Your task to perform on an android device: change alarm snooze length Image 0: 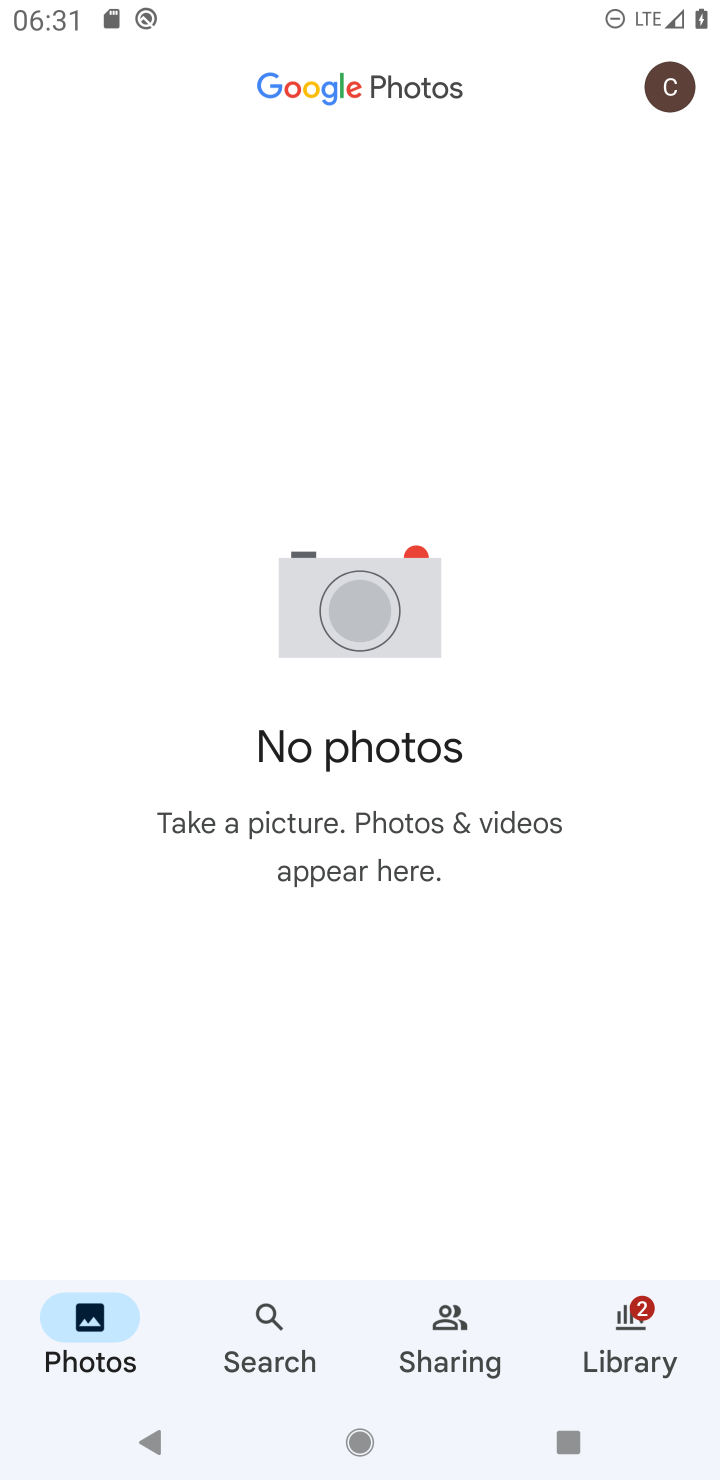
Step 0: press home button
Your task to perform on an android device: change alarm snooze length Image 1: 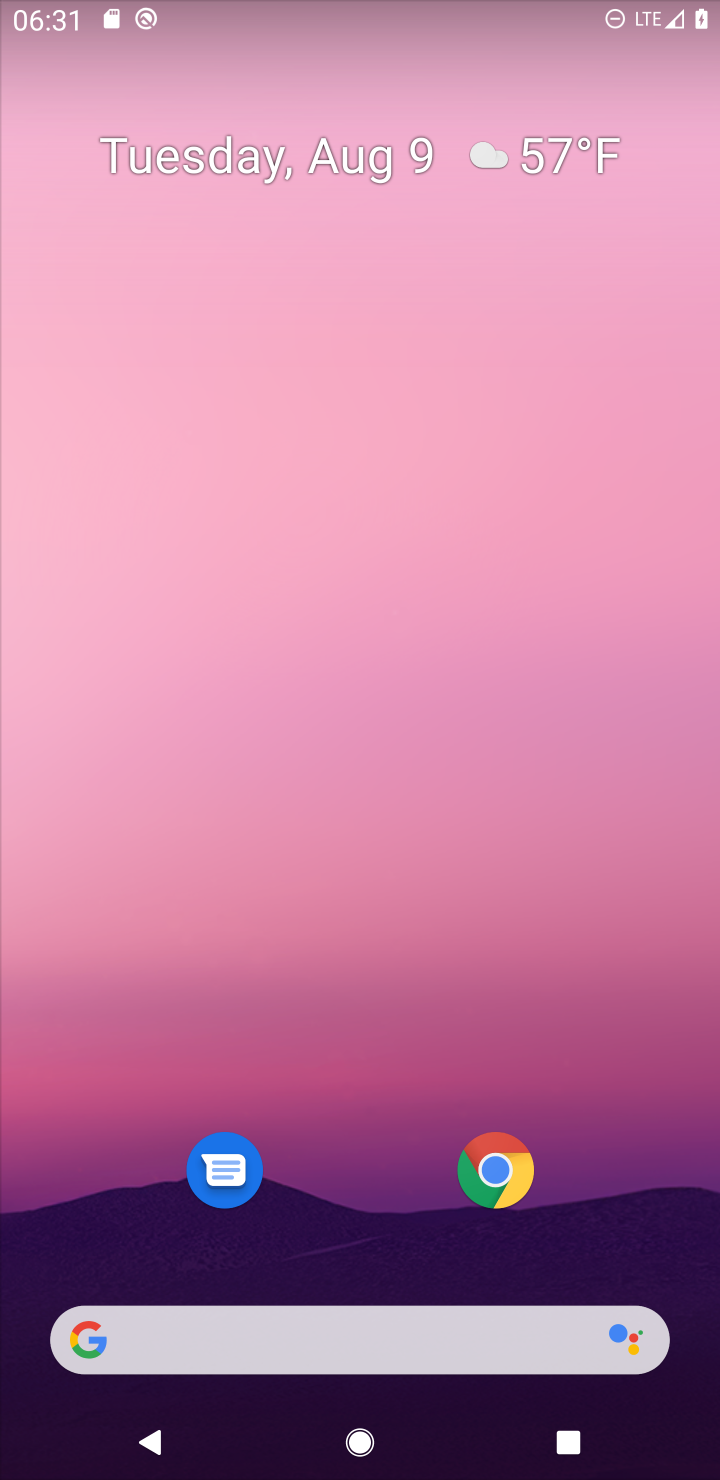
Step 1: drag from (363, 1204) to (372, 100)
Your task to perform on an android device: change alarm snooze length Image 2: 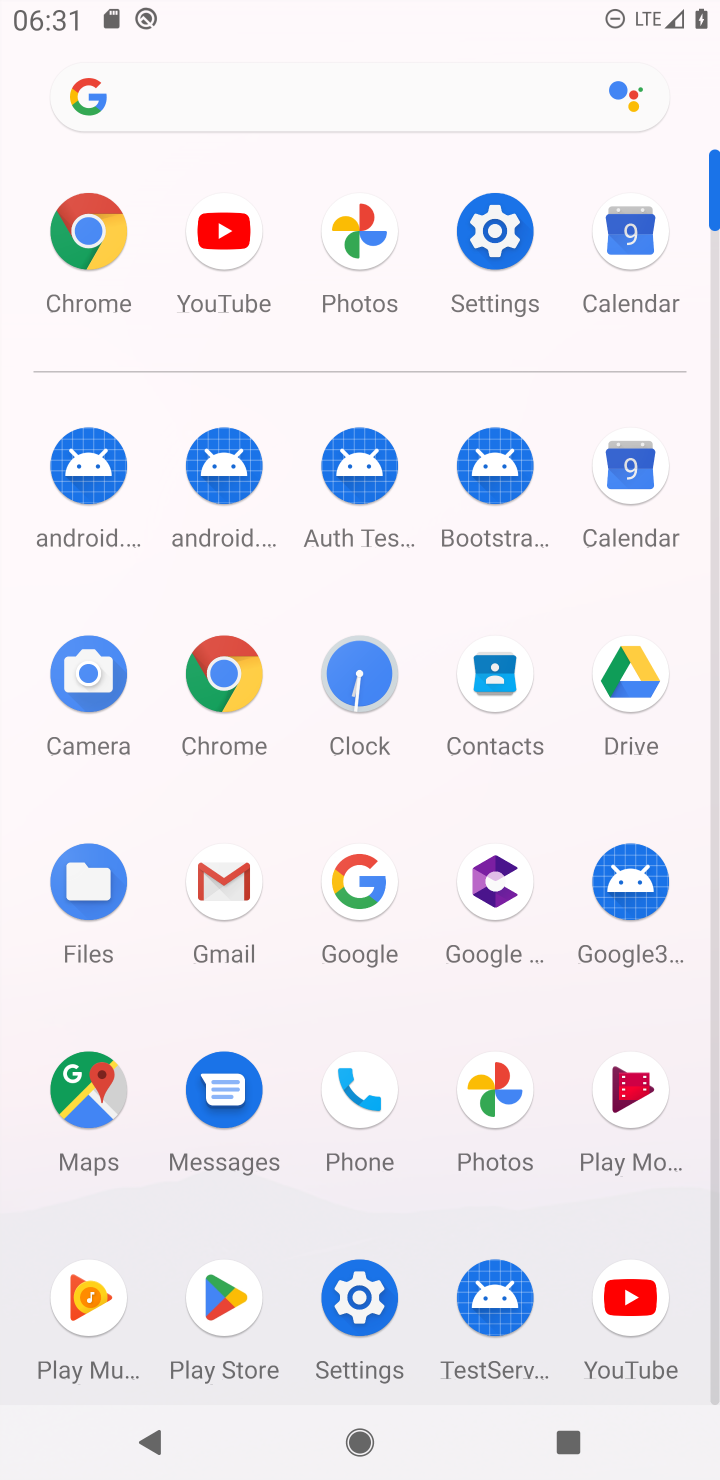
Step 2: click (335, 678)
Your task to perform on an android device: change alarm snooze length Image 3: 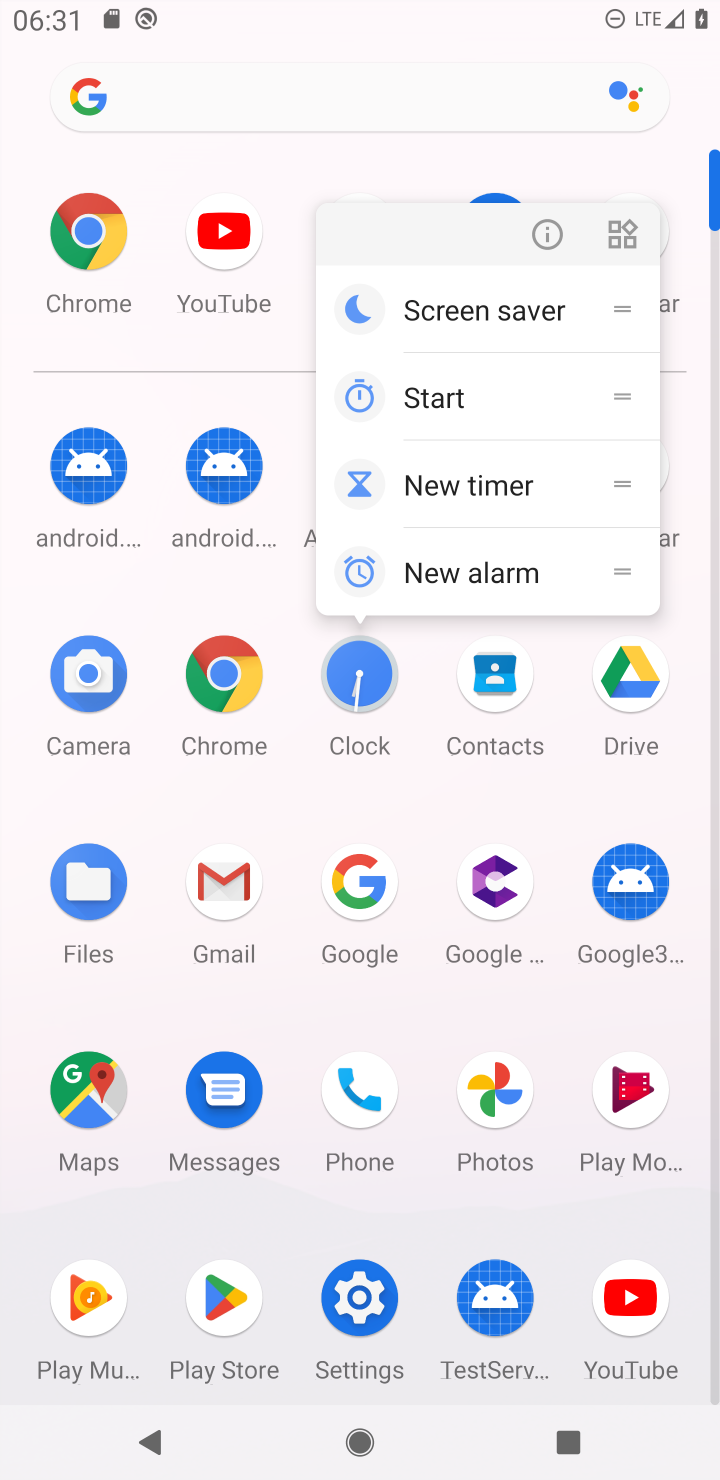
Step 3: click (335, 678)
Your task to perform on an android device: change alarm snooze length Image 4: 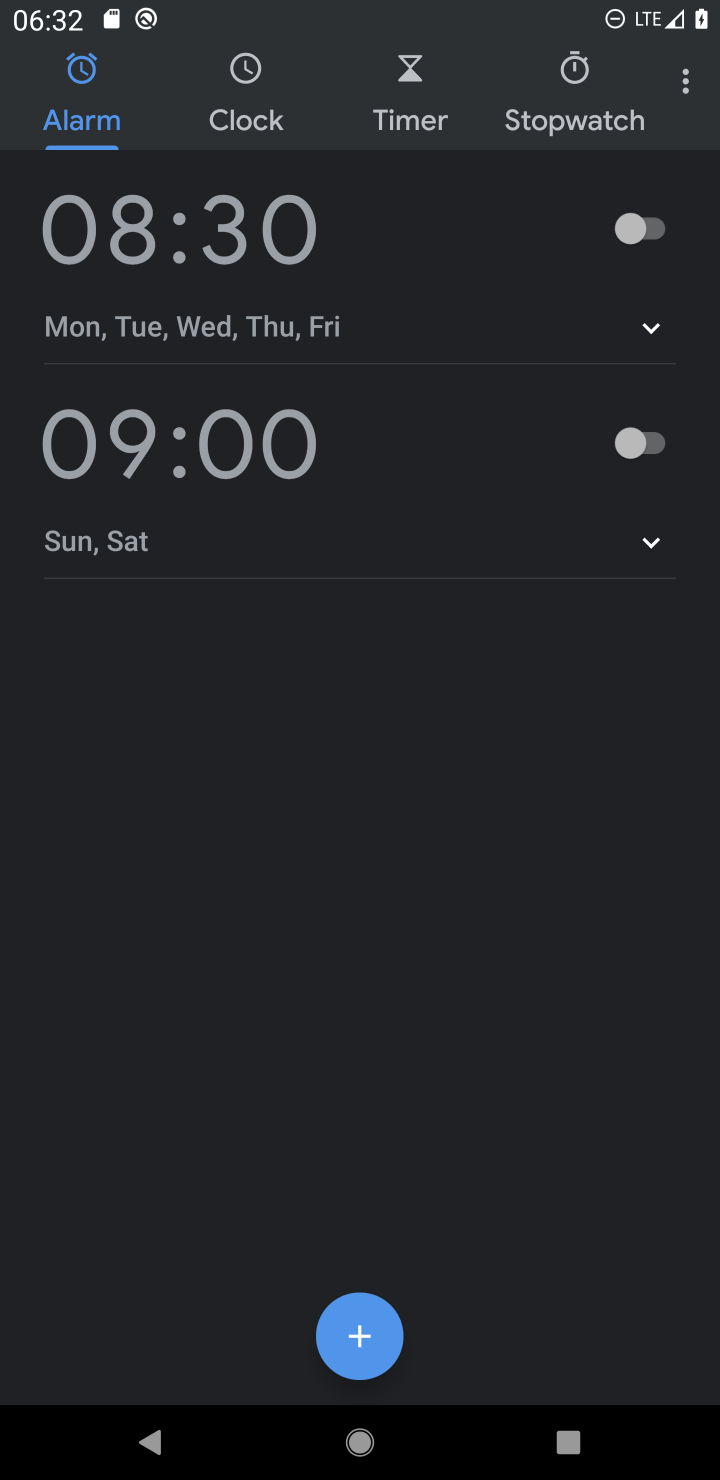
Step 4: click (687, 83)
Your task to perform on an android device: change alarm snooze length Image 5: 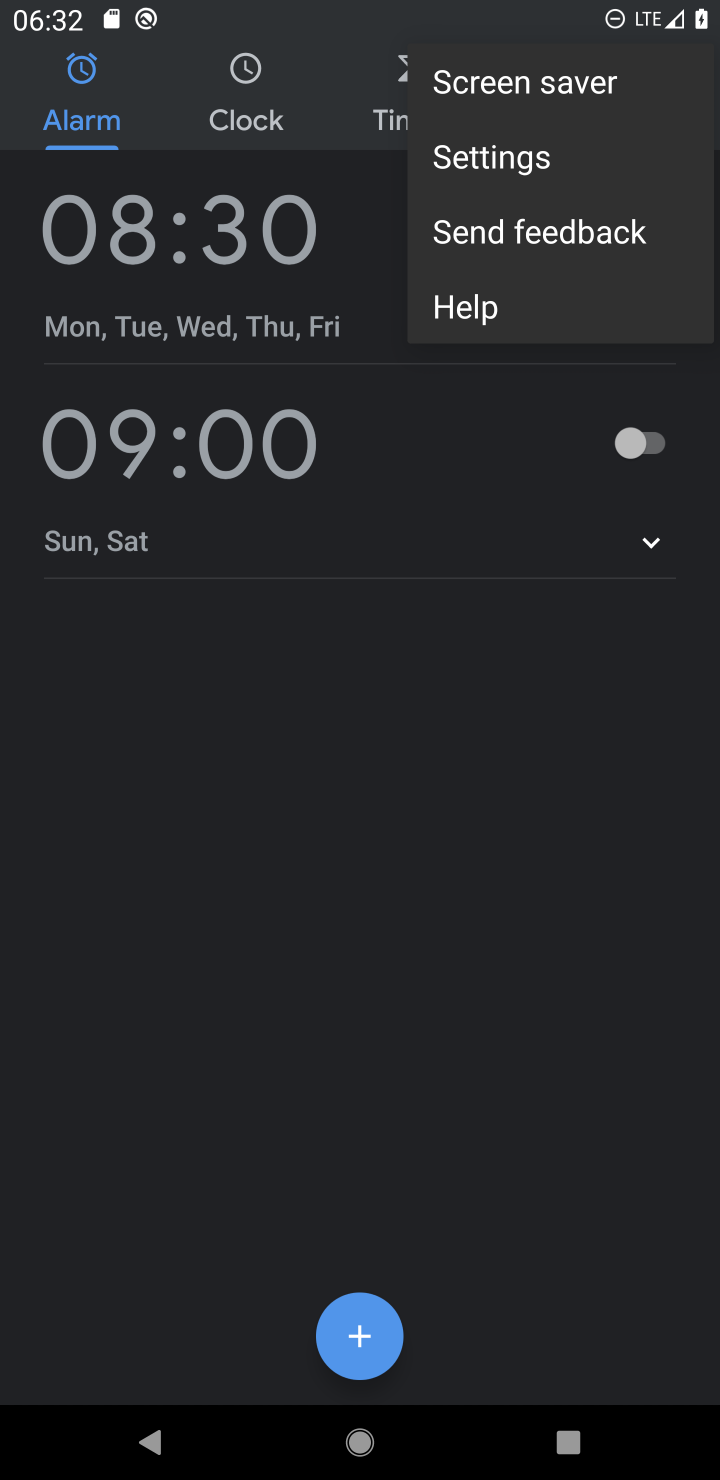
Step 5: click (519, 166)
Your task to perform on an android device: change alarm snooze length Image 6: 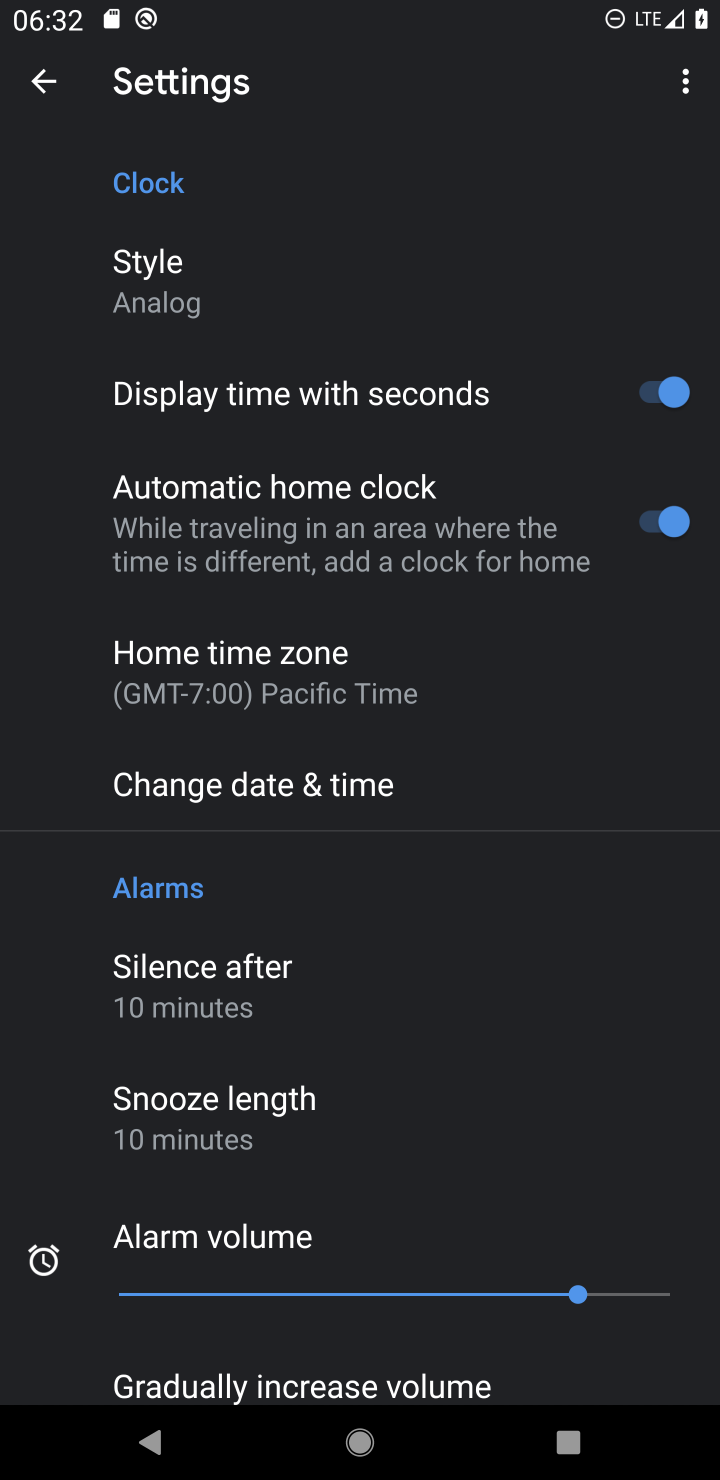
Step 6: click (209, 1126)
Your task to perform on an android device: change alarm snooze length Image 7: 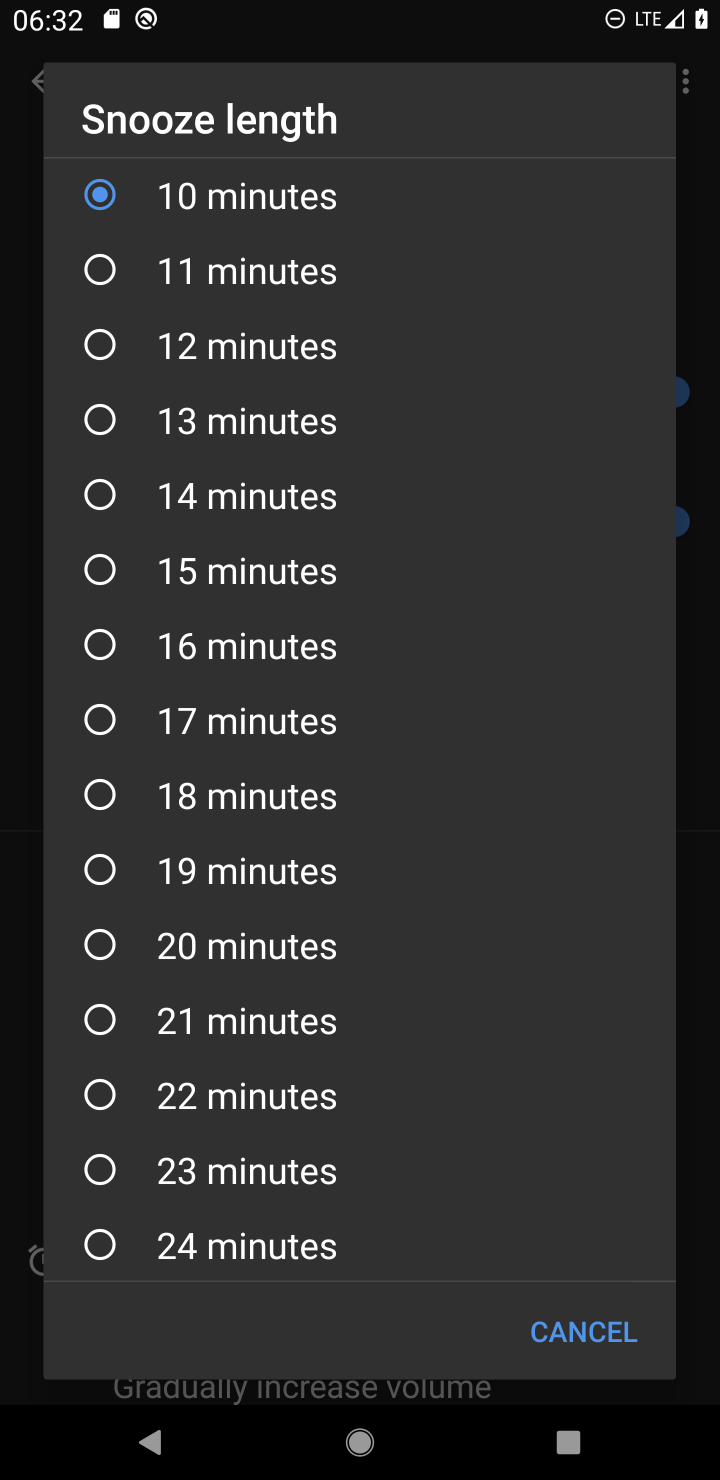
Step 7: click (95, 641)
Your task to perform on an android device: change alarm snooze length Image 8: 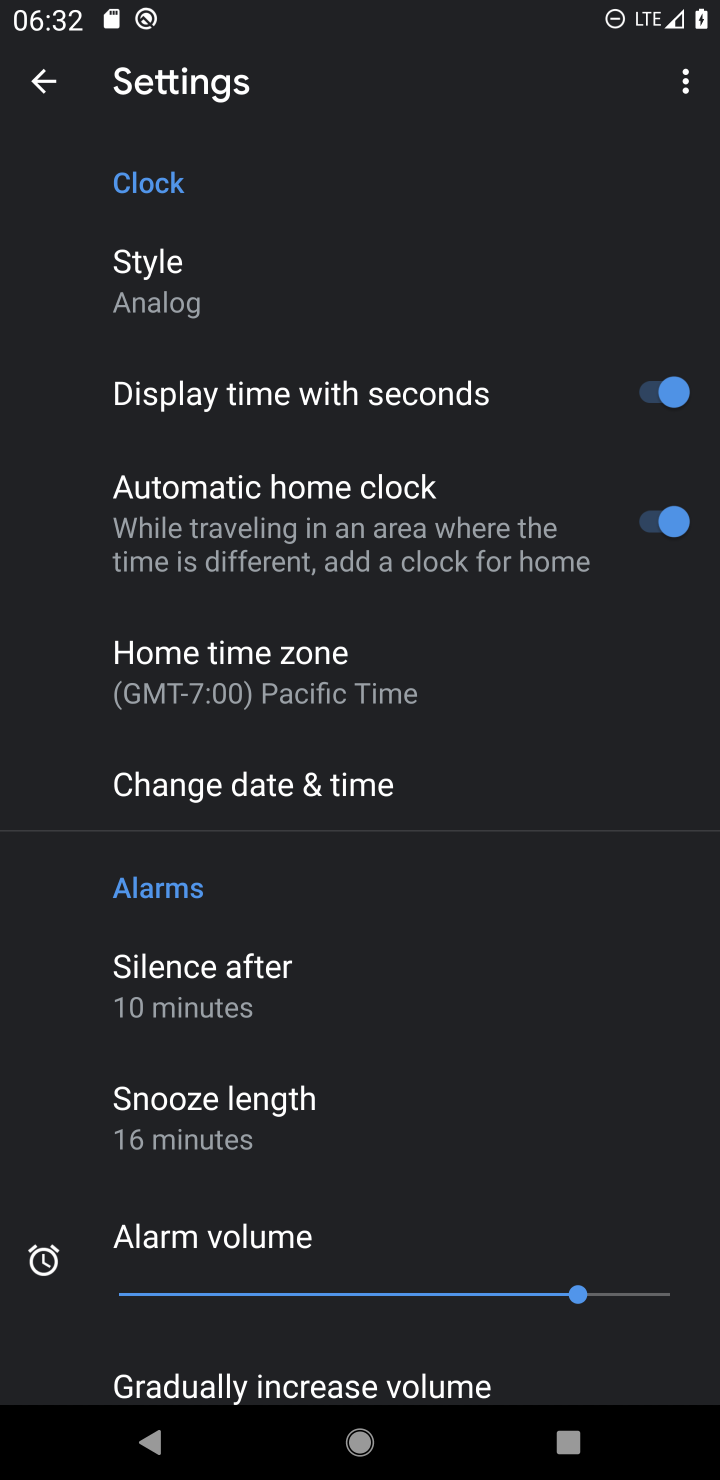
Step 8: task complete